Your task to perform on an android device: Do I have any events this weekend? Image 0: 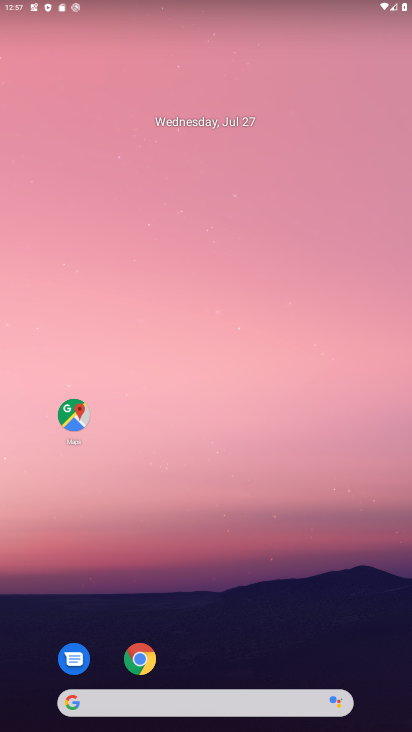
Step 0: click (164, 691)
Your task to perform on an android device: Do I have any events this weekend? Image 1: 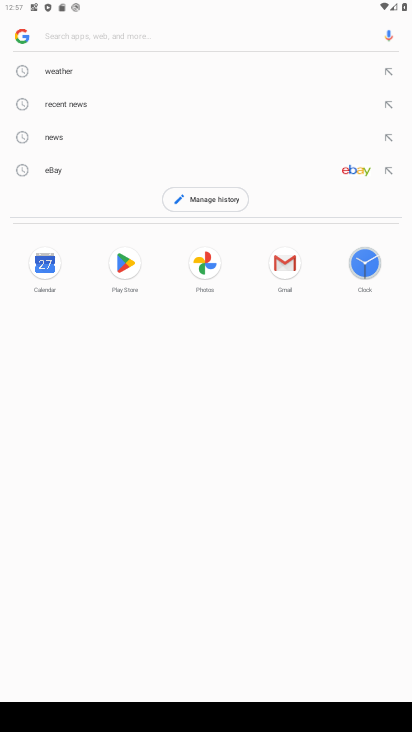
Step 1: type "Do I have any events this weekend?"
Your task to perform on an android device: Do I have any events this weekend? Image 2: 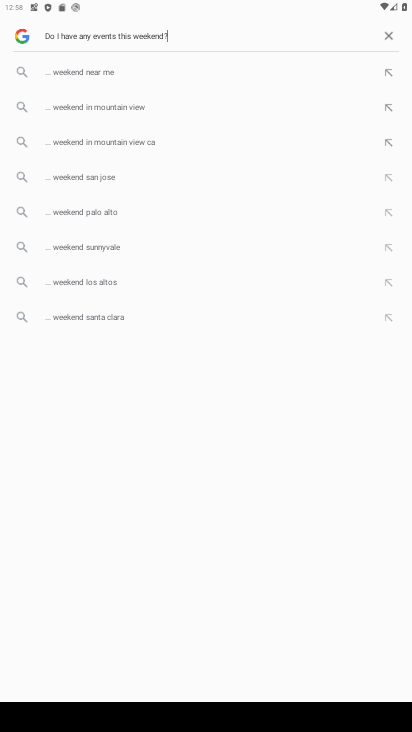
Step 2: type ""
Your task to perform on an android device: Do I have any events this weekend? Image 3: 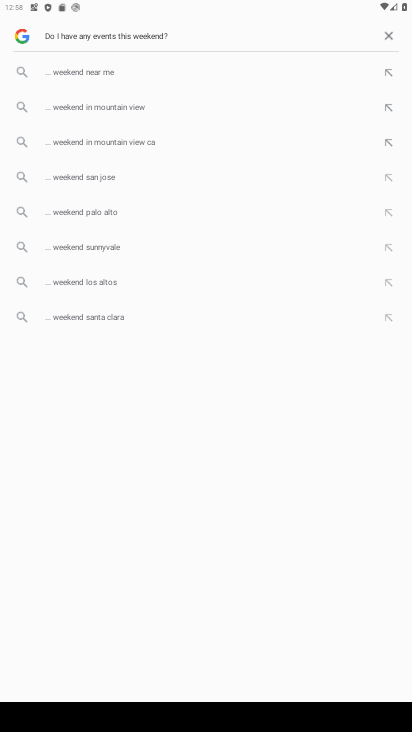
Step 3: click (272, 28)
Your task to perform on an android device: Do I have any events this weekend? Image 4: 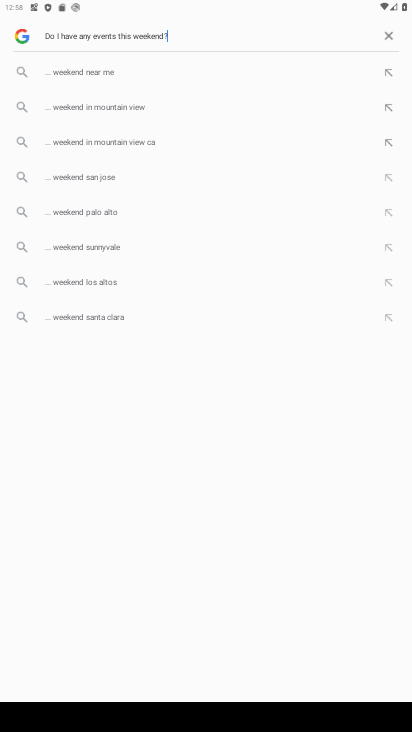
Step 4: click (244, 38)
Your task to perform on an android device: Do I have any events this weekend? Image 5: 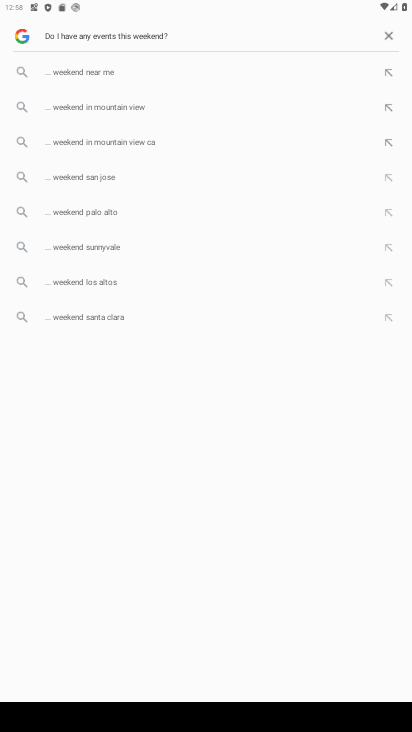
Step 5: click (387, 75)
Your task to perform on an android device: Do I have any events this weekend? Image 6: 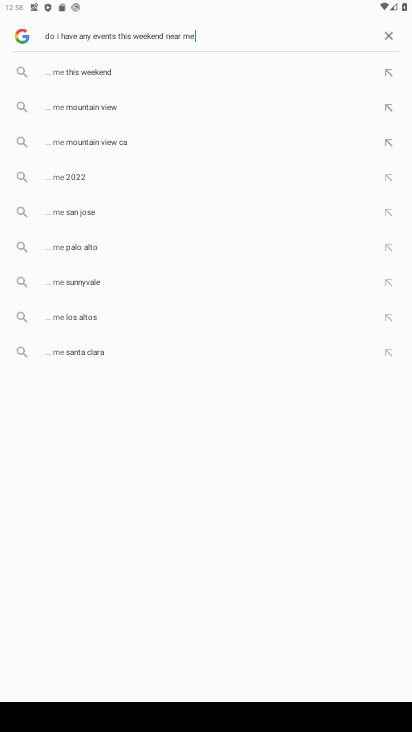
Step 6: drag from (208, 29) to (167, 36)
Your task to perform on an android device: Do I have any events this weekend? Image 7: 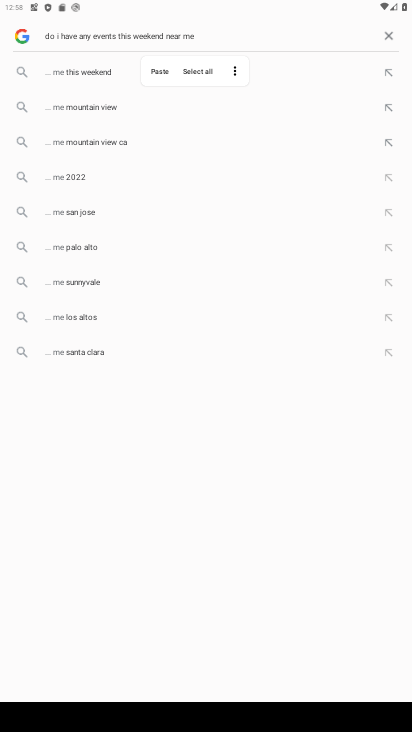
Step 7: click (389, 29)
Your task to perform on an android device: Do I have any events this weekend? Image 8: 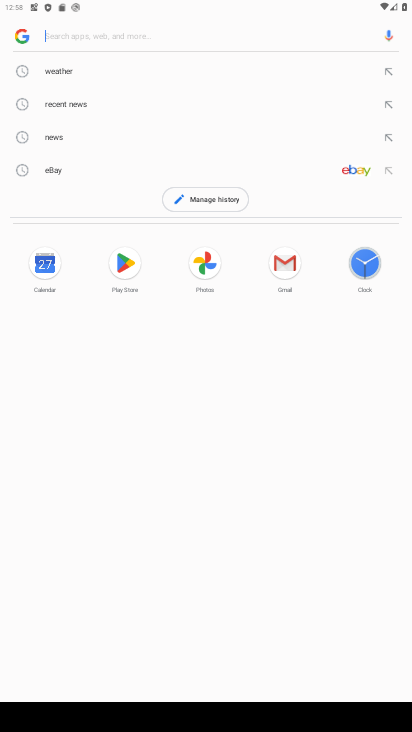
Step 8: click (93, 34)
Your task to perform on an android device: Do I have any events this weekend? Image 9: 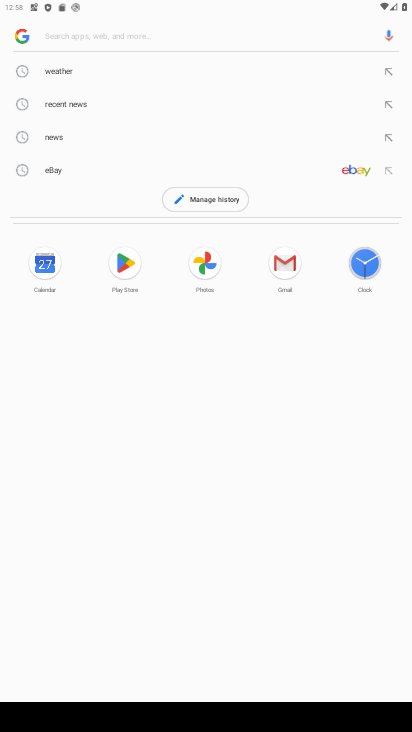
Step 9: click (92, 39)
Your task to perform on an android device: Do I have any events this weekend? Image 10: 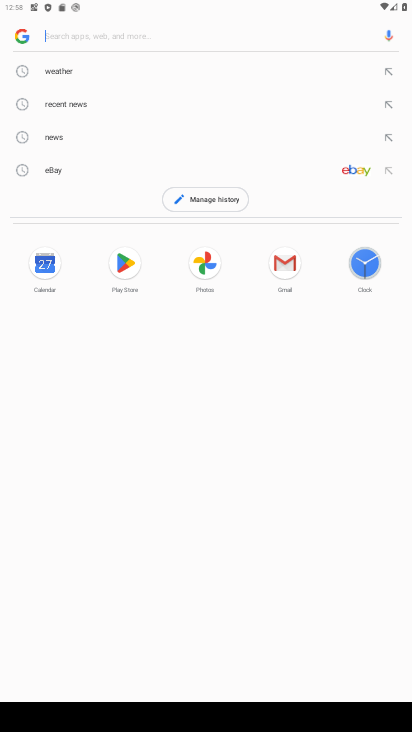
Step 10: click (92, 39)
Your task to perform on an android device: Do I have any events this weekend? Image 11: 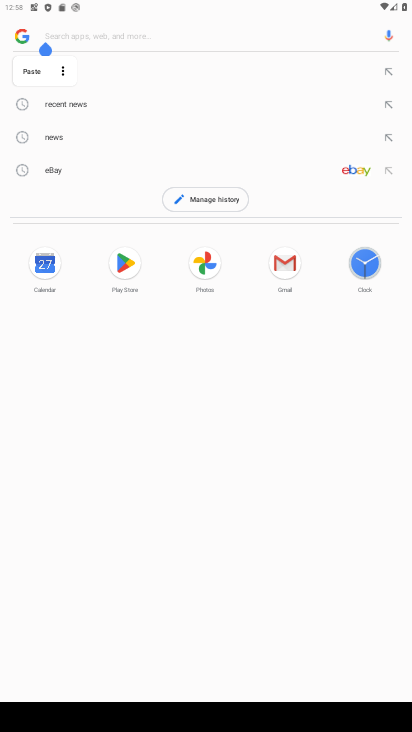
Step 11: click (28, 71)
Your task to perform on an android device: Do I have any events this weekend? Image 12: 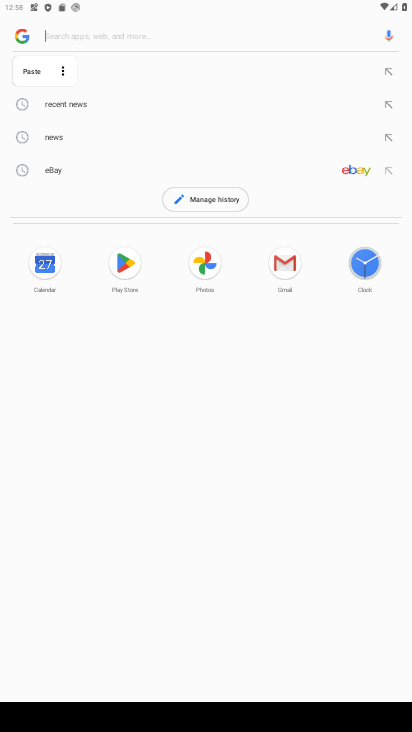
Step 12: click (28, 71)
Your task to perform on an android device: Do I have any events this weekend? Image 13: 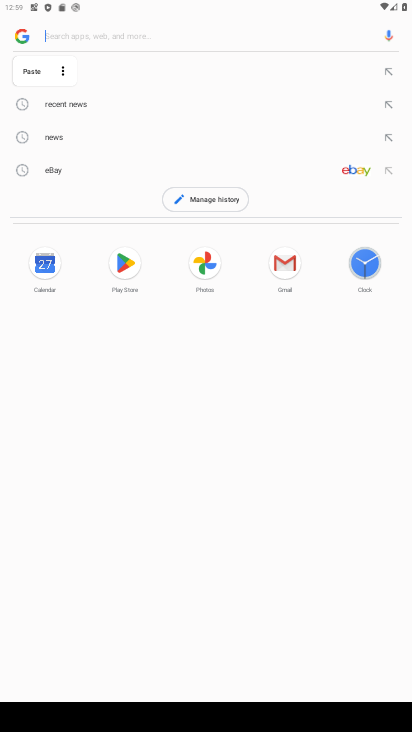
Step 13: type "Do I have any events this weekend?"
Your task to perform on an android device: Do I have any events this weekend? Image 14: 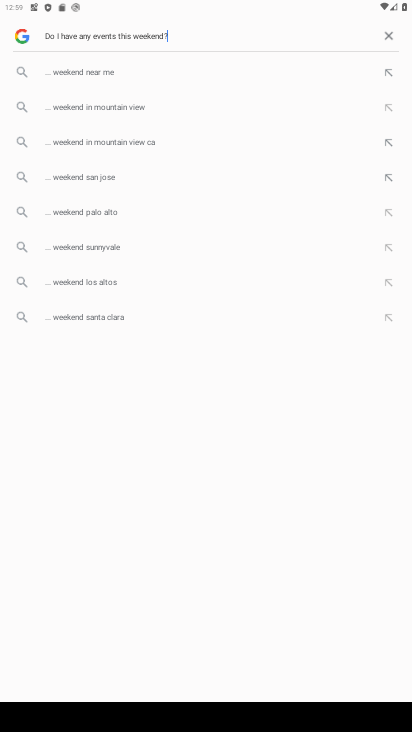
Step 14: click (268, 72)
Your task to perform on an android device: Do I have any events this weekend? Image 15: 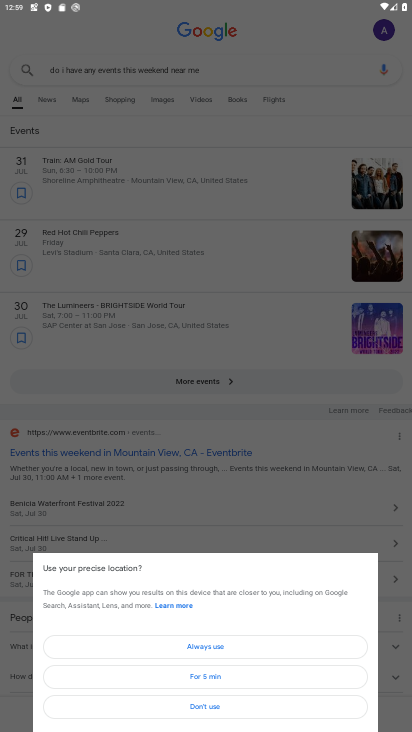
Step 15: task complete